Your task to perform on an android device: Open Reddit.com Image 0: 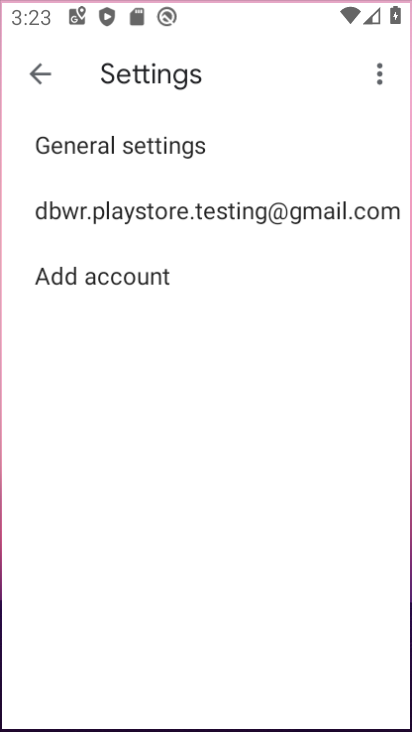
Step 0: drag from (212, 573) to (203, 173)
Your task to perform on an android device: Open Reddit.com Image 1: 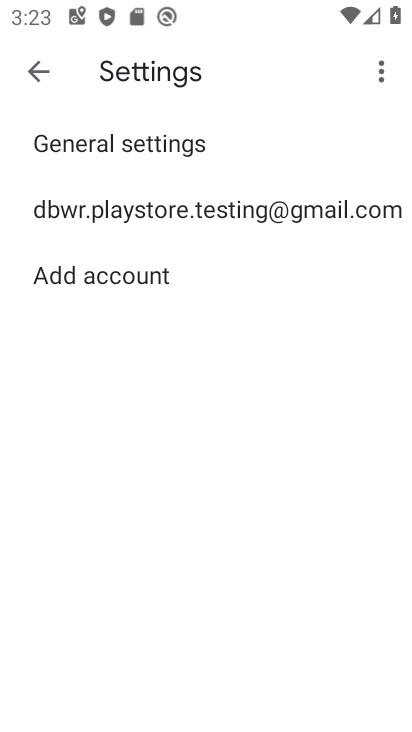
Step 1: press home button
Your task to perform on an android device: Open Reddit.com Image 2: 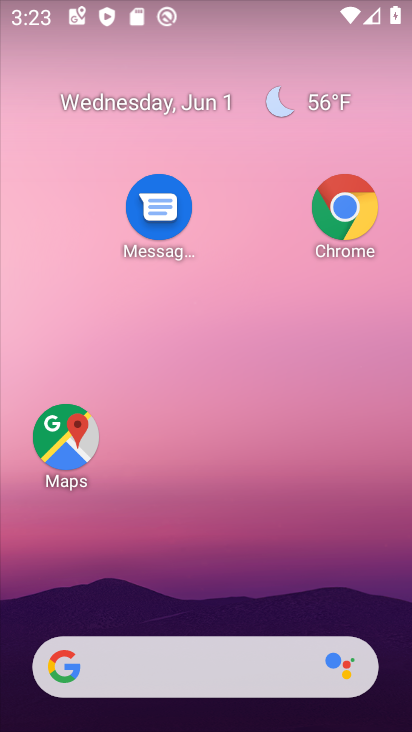
Step 2: click (198, 656)
Your task to perform on an android device: Open Reddit.com Image 3: 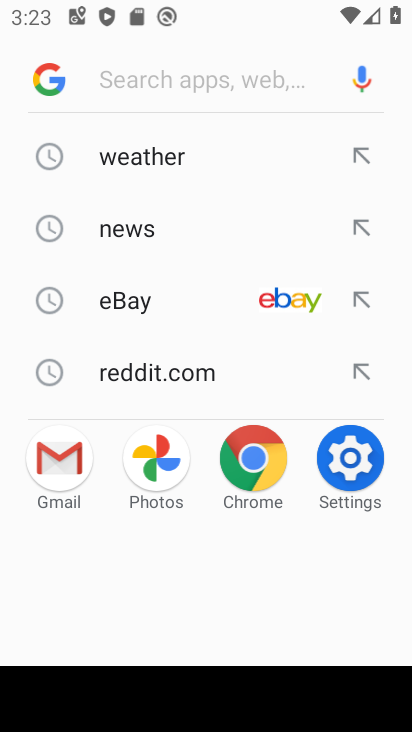
Step 3: click (147, 373)
Your task to perform on an android device: Open Reddit.com Image 4: 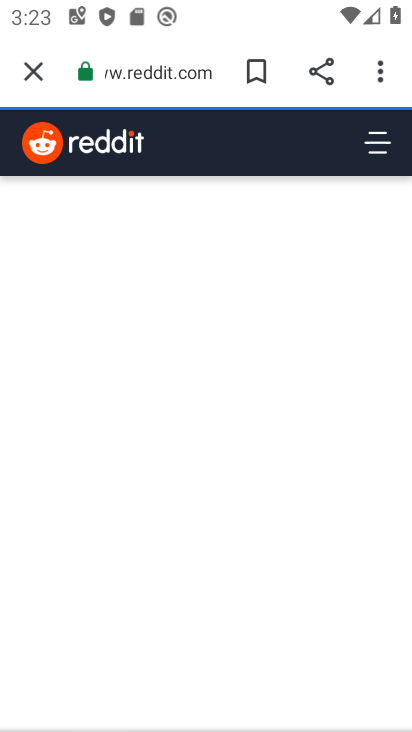
Step 4: task complete